Your task to perform on an android device: set the timer Image 0: 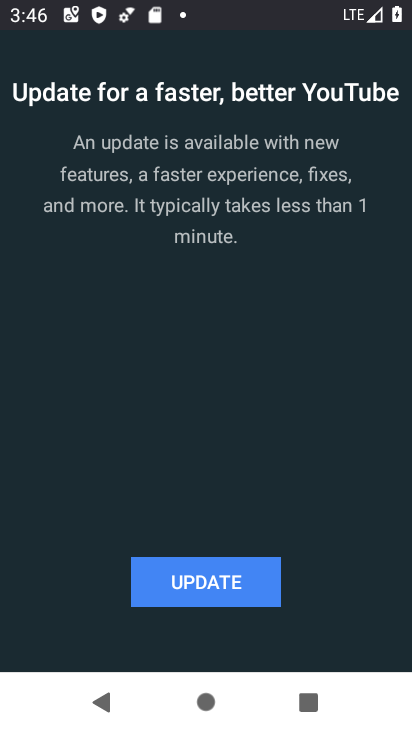
Step 0: press home button
Your task to perform on an android device: set the timer Image 1: 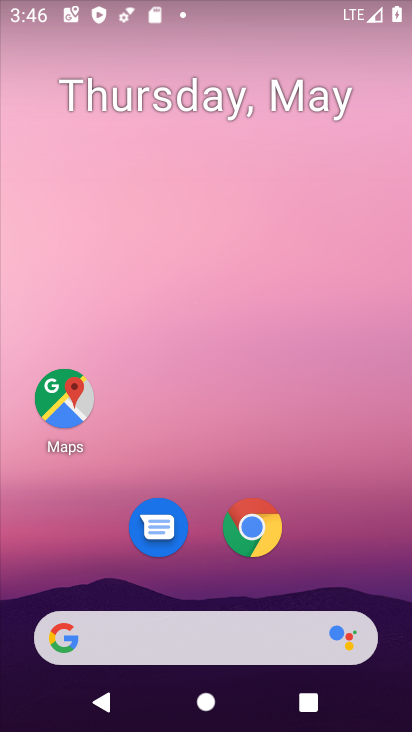
Step 1: drag from (391, 621) to (319, 154)
Your task to perform on an android device: set the timer Image 2: 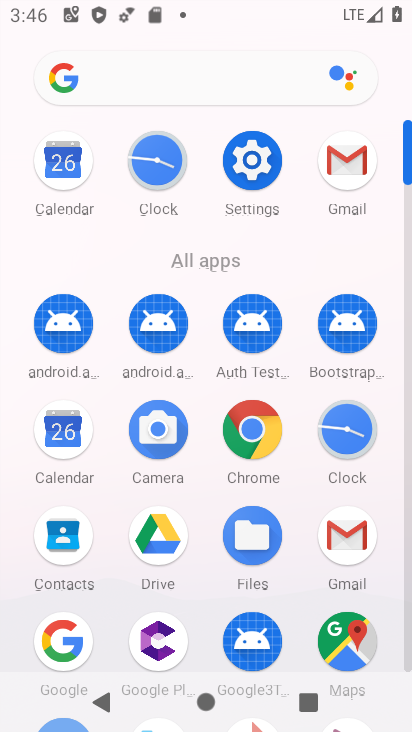
Step 2: click (346, 425)
Your task to perform on an android device: set the timer Image 3: 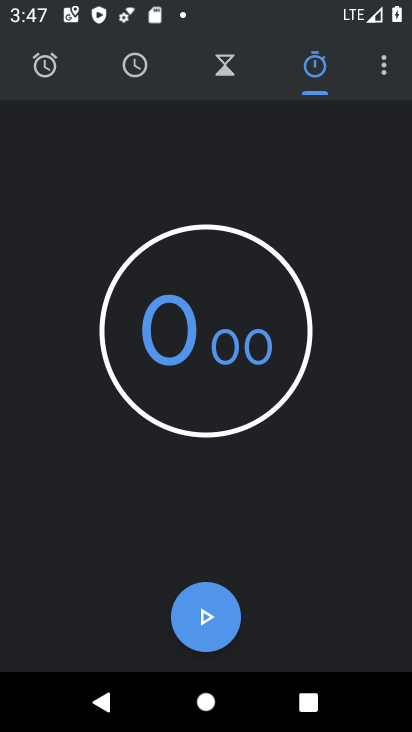
Step 3: click (218, 67)
Your task to perform on an android device: set the timer Image 4: 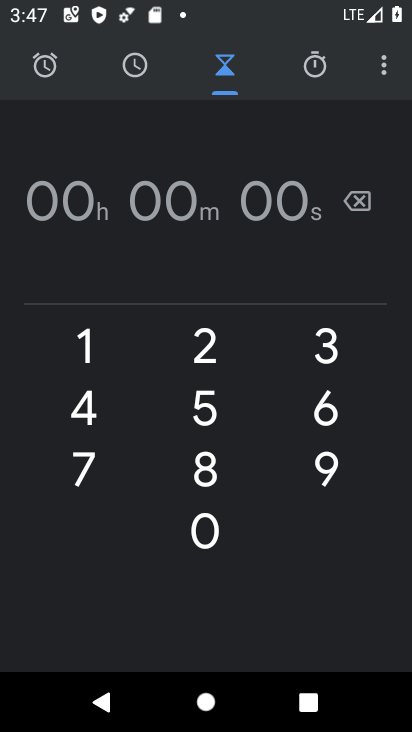
Step 4: click (99, 338)
Your task to perform on an android device: set the timer Image 5: 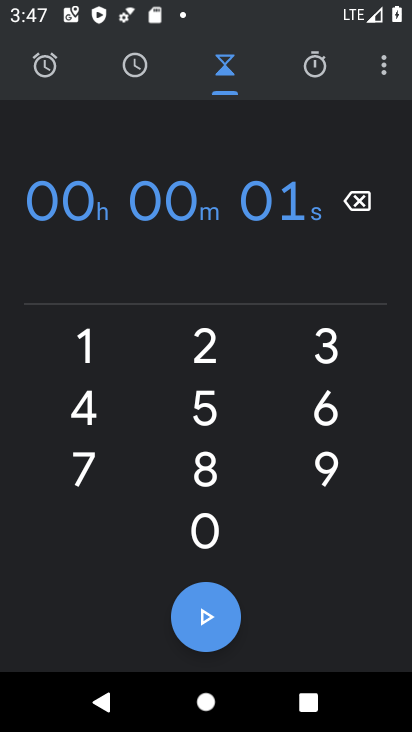
Step 5: click (332, 358)
Your task to perform on an android device: set the timer Image 6: 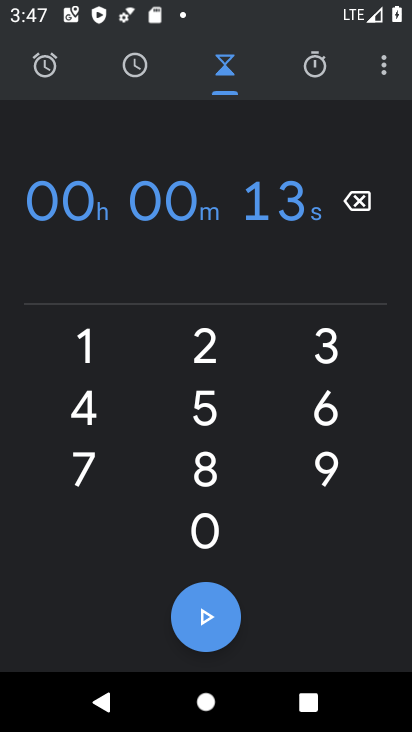
Step 6: click (215, 531)
Your task to perform on an android device: set the timer Image 7: 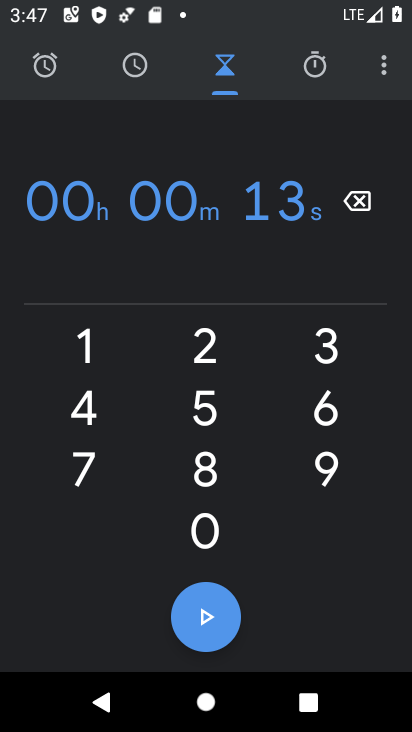
Step 7: click (215, 531)
Your task to perform on an android device: set the timer Image 8: 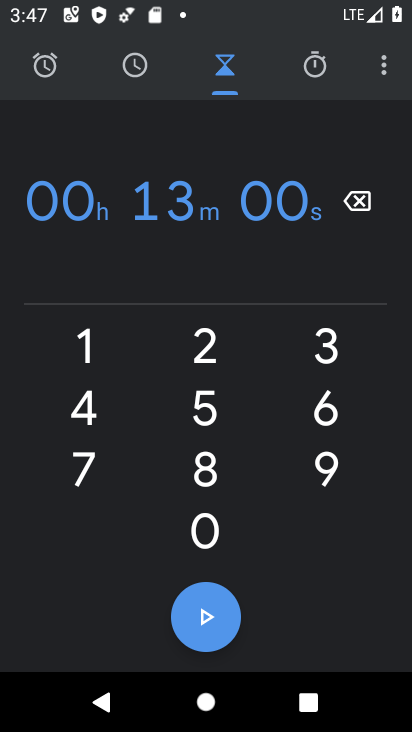
Step 8: click (215, 531)
Your task to perform on an android device: set the timer Image 9: 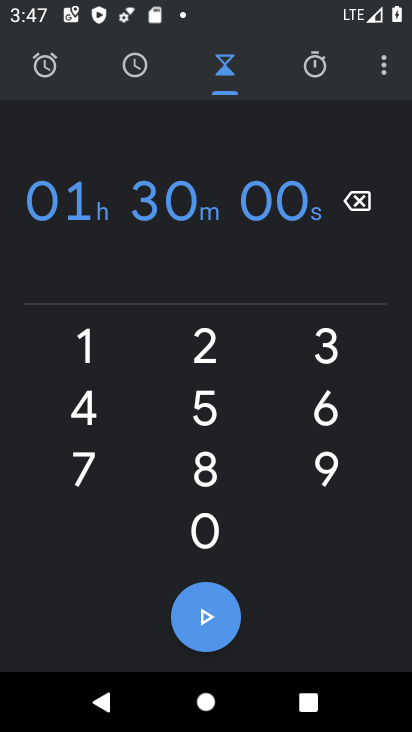
Step 9: task complete